Your task to perform on an android device: turn on notifications settings in the gmail app Image 0: 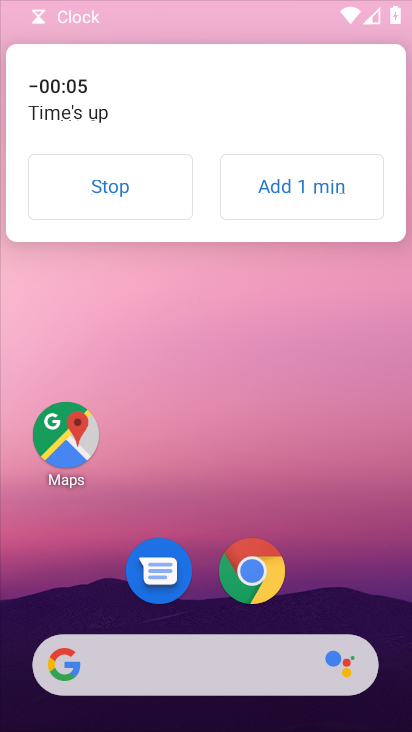
Step 0: click (147, 179)
Your task to perform on an android device: turn on notifications settings in the gmail app Image 1: 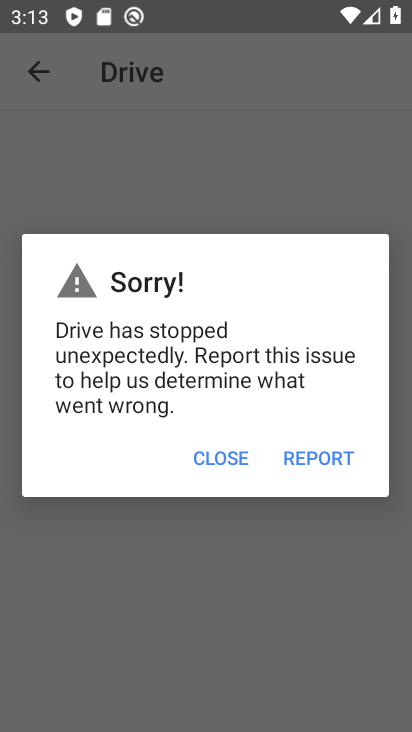
Step 1: press home button
Your task to perform on an android device: turn on notifications settings in the gmail app Image 2: 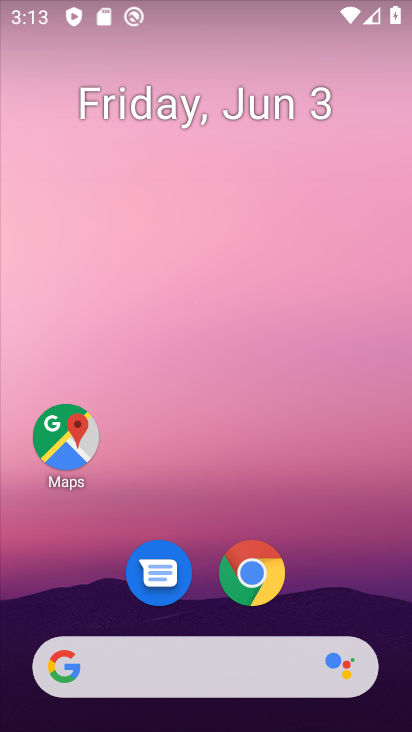
Step 2: drag from (397, 682) to (340, 118)
Your task to perform on an android device: turn on notifications settings in the gmail app Image 3: 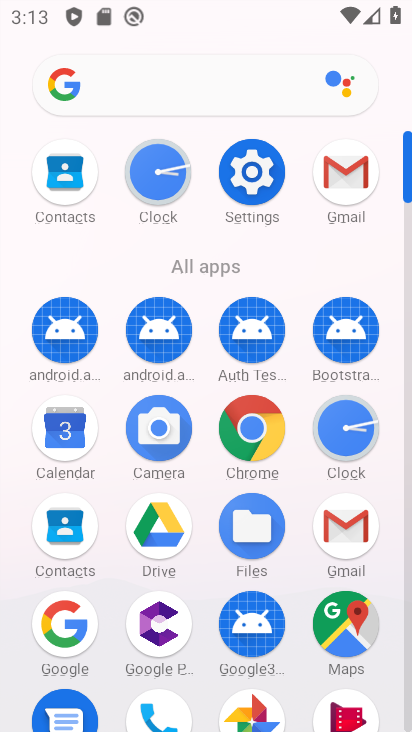
Step 3: click (345, 512)
Your task to perform on an android device: turn on notifications settings in the gmail app Image 4: 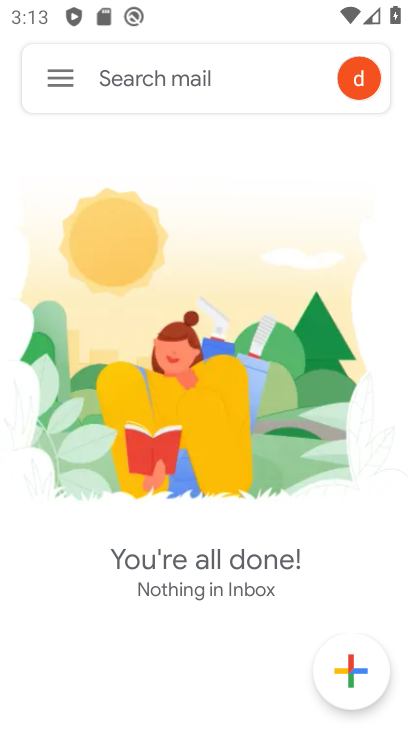
Step 4: click (47, 62)
Your task to perform on an android device: turn on notifications settings in the gmail app Image 5: 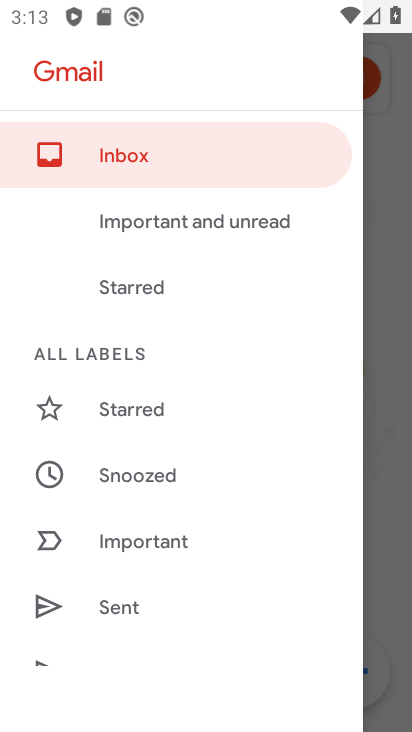
Step 5: drag from (223, 431) to (237, 269)
Your task to perform on an android device: turn on notifications settings in the gmail app Image 6: 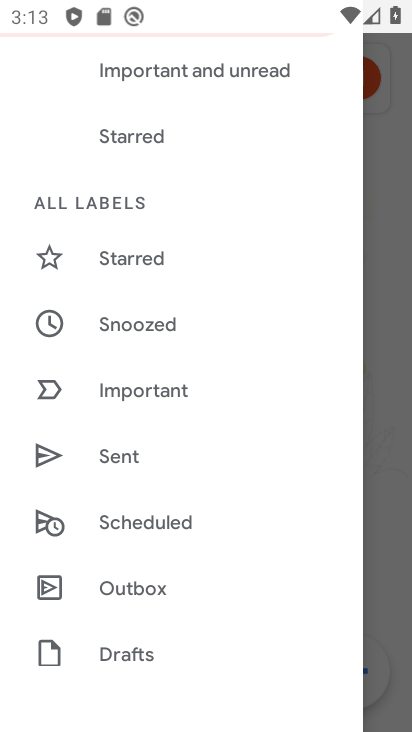
Step 6: drag from (240, 614) to (243, 362)
Your task to perform on an android device: turn on notifications settings in the gmail app Image 7: 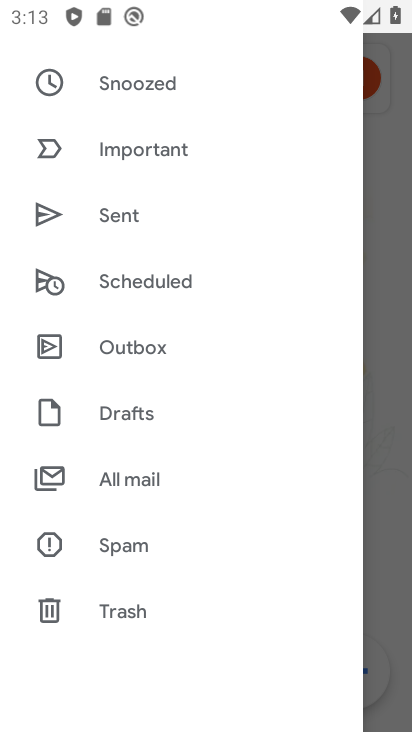
Step 7: drag from (207, 560) to (195, 272)
Your task to perform on an android device: turn on notifications settings in the gmail app Image 8: 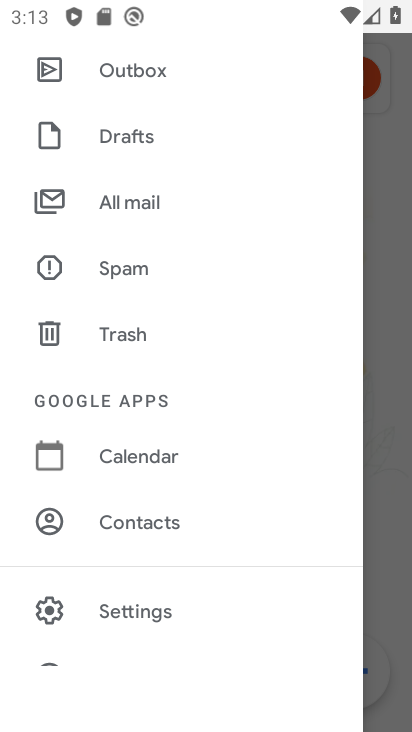
Step 8: click (151, 608)
Your task to perform on an android device: turn on notifications settings in the gmail app Image 9: 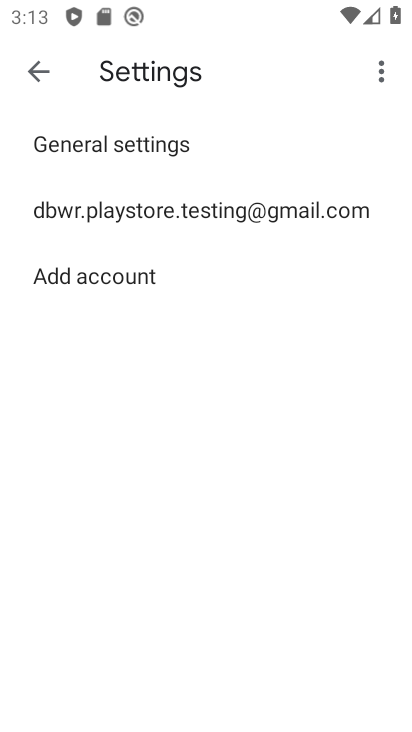
Step 9: click (108, 144)
Your task to perform on an android device: turn on notifications settings in the gmail app Image 10: 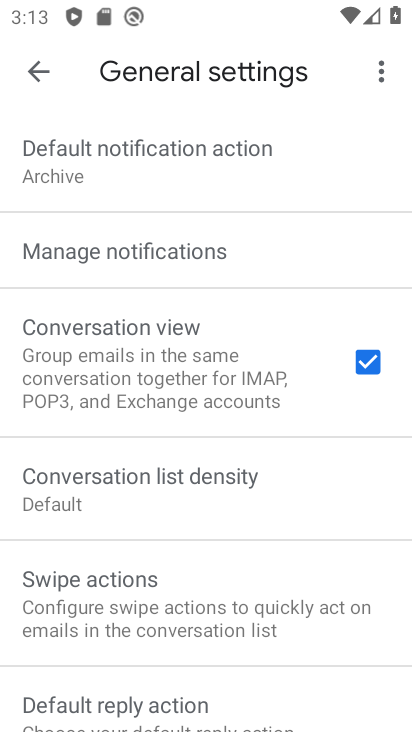
Step 10: click (109, 249)
Your task to perform on an android device: turn on notifications settings in the gmail app Image 11: 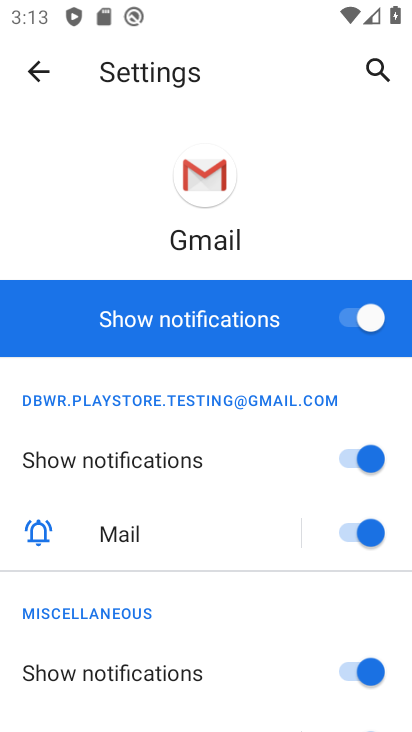
Step 11: task complete